Your task to perform on an android device: Go to ESPN.com Image 0: 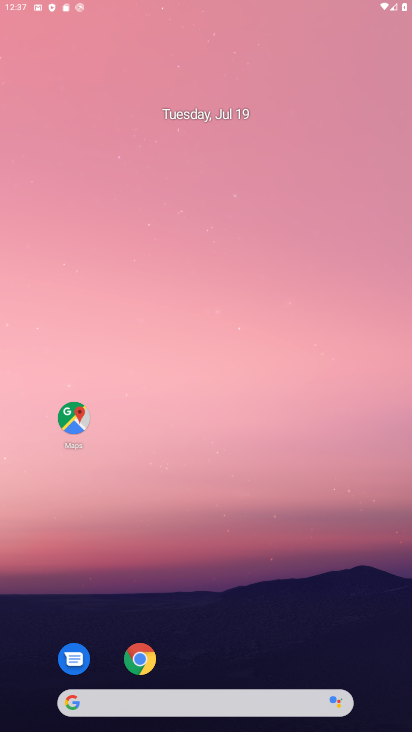
Step 0: click (157, 20)
Your task to perform on an android device: Go to ESPN.com Image 1: 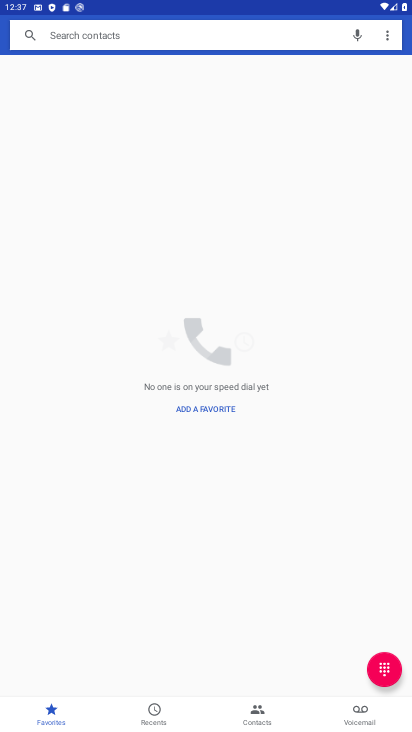
Step 1: press home button
Your task to perform on an android device: Go to ESPN.com Image 2: 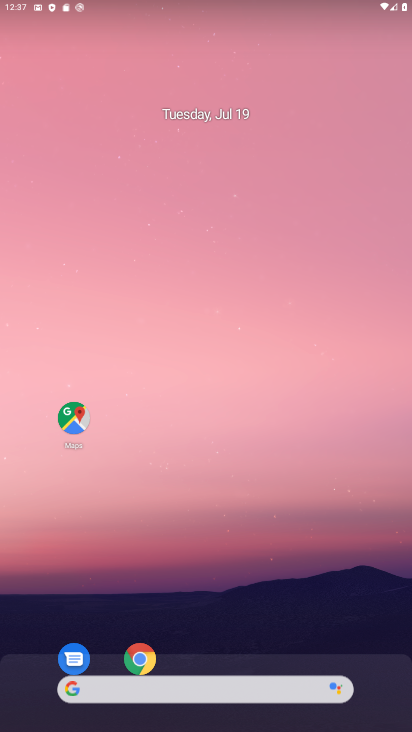
Step 2: click (148, 663)
Your task to perform on an android device: Go to ESPN.com Image 3: 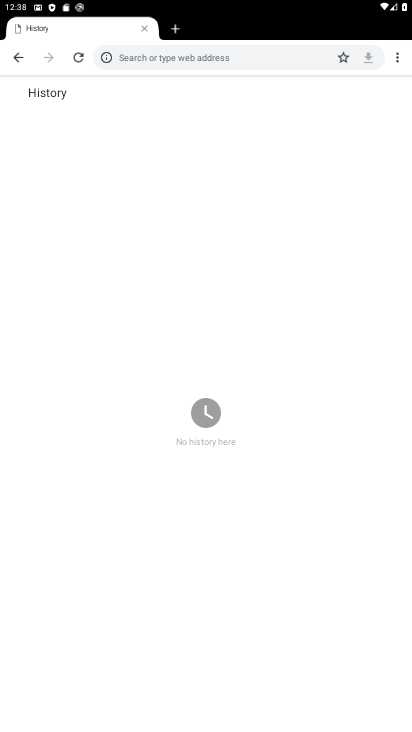
Step 3: click (228, 66)
Your task to perform on an android device: Go to ESPN.com Image 4: 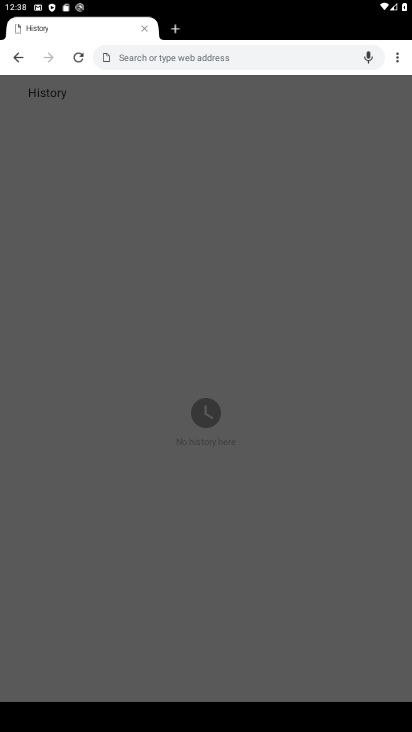
Step 4: type "ESPN.com"
Your task to perform on an android device: Go to ESPN.com Image 5: 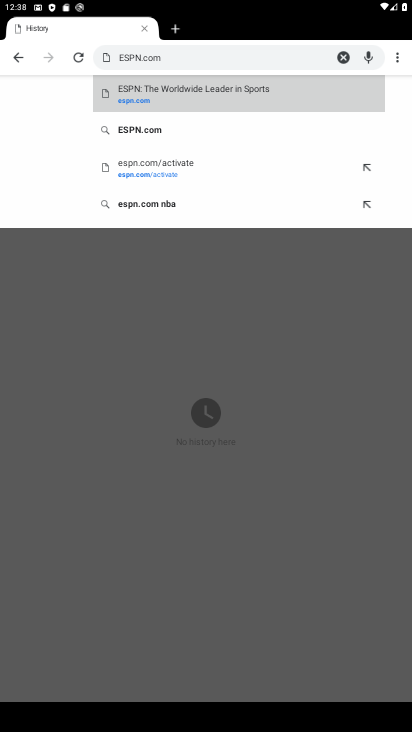
Step 5: click (146, 145)
Your task to perform on an android device: Go to ESPN.com Image 6: 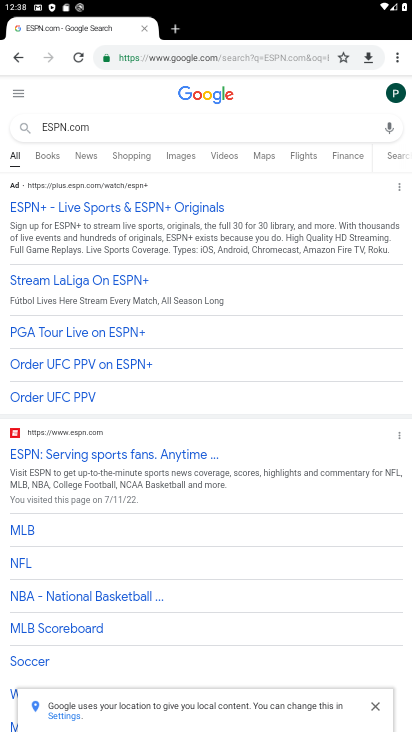
Step 6: task complete